Your task to perform on an android device: open app "Microsoft Outlook" Image 0: 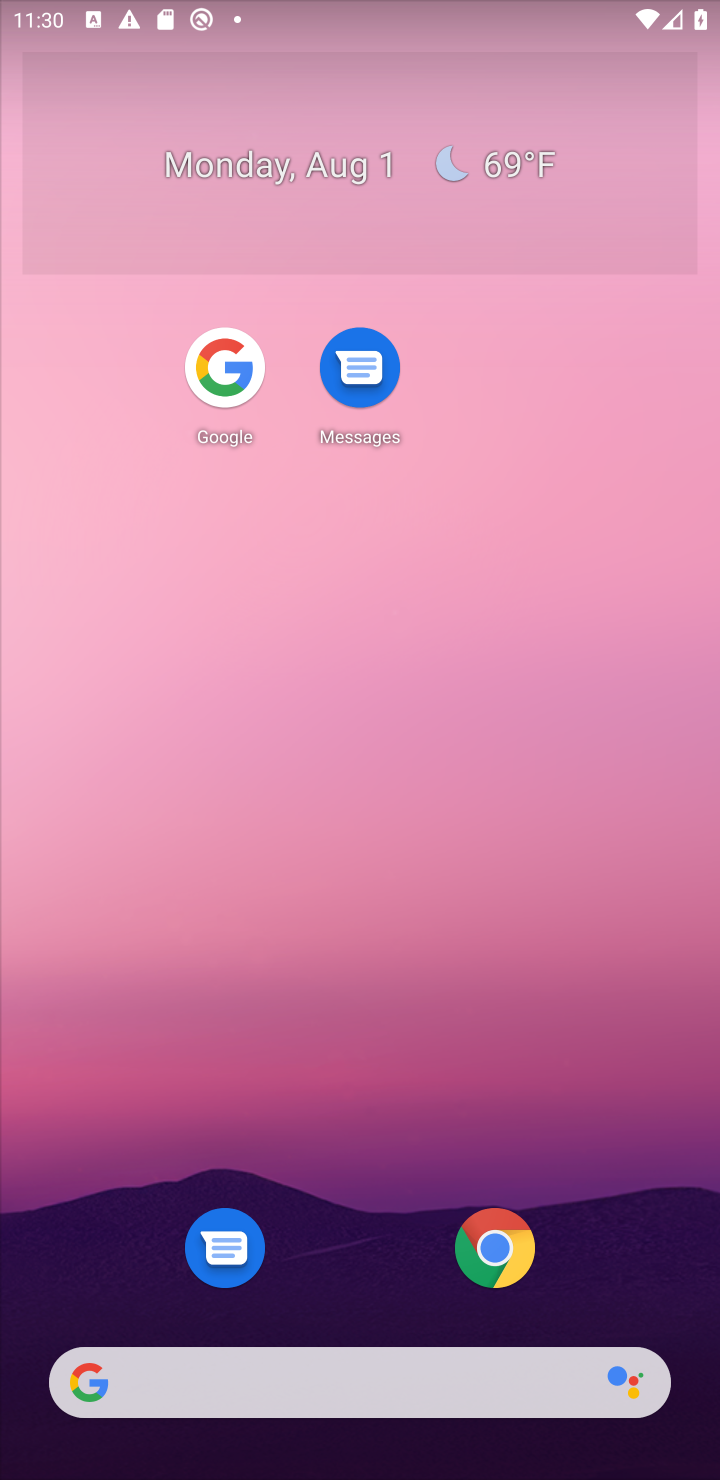
Step 0: drag from (503, 1061) to (555, 30)
Your task to perform on an android device: open app "Microsoft Outlook" Image 1: 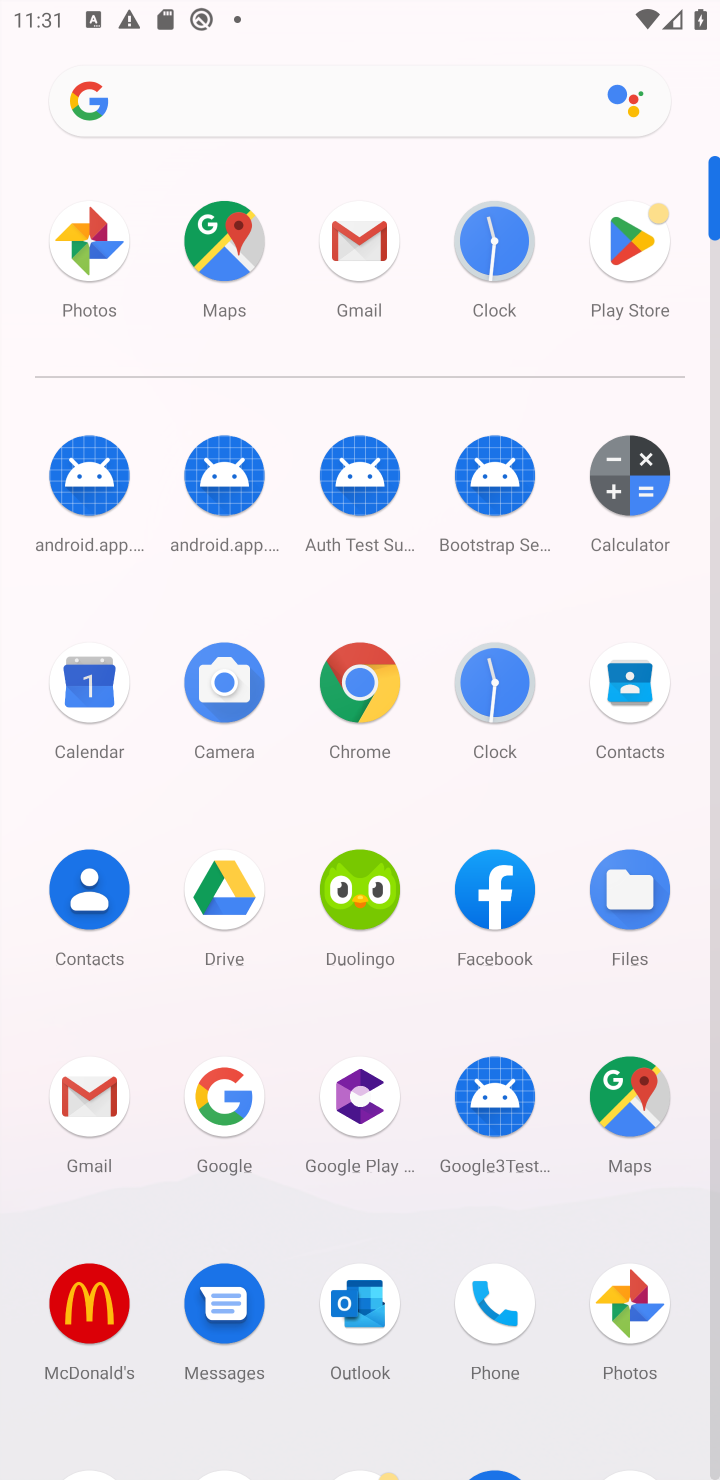
Step 1: drag from (297, 1188) to (324, 346)
Your task to perform on an android device: open app "Microsoft Outlook" Image 2: 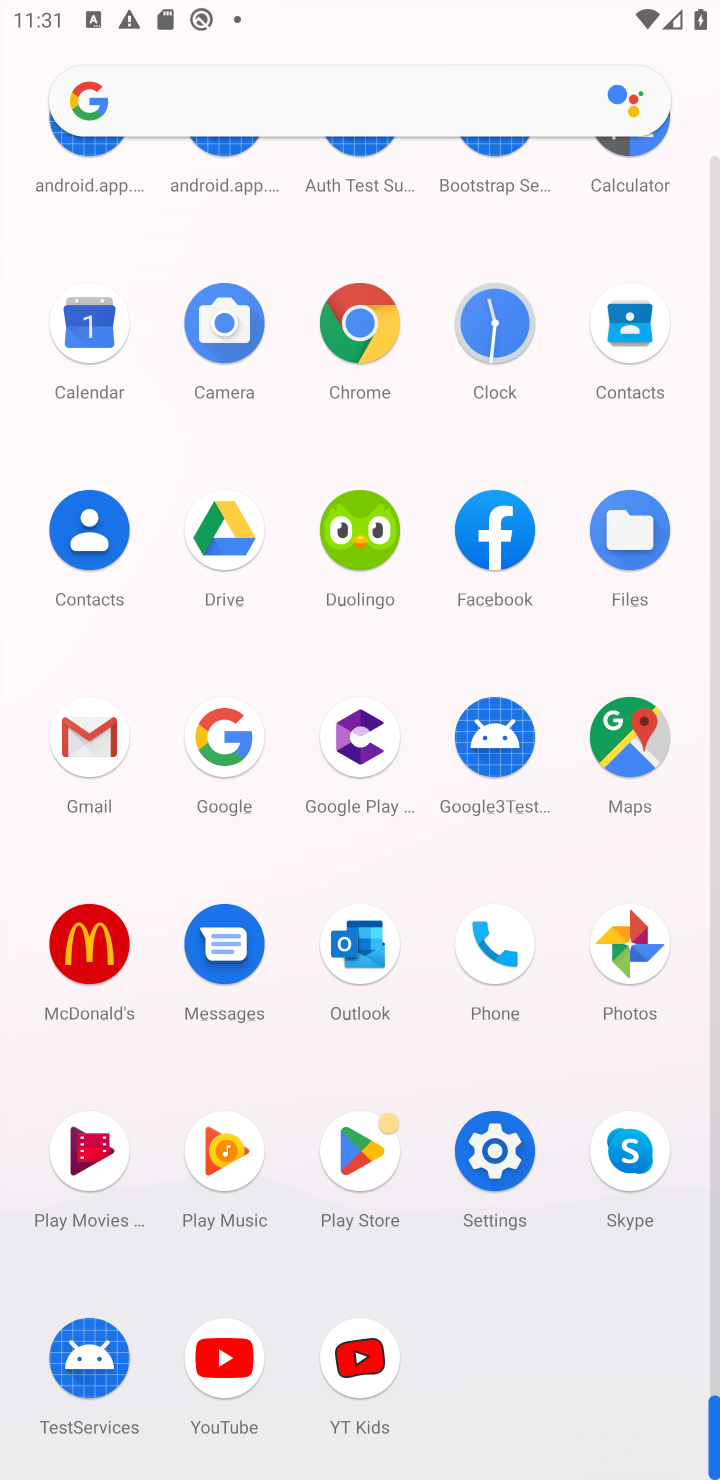
Step 2: click (365, 1153)
Your task to perform on an android device: open app "Microsoft Outlook" Image 3: 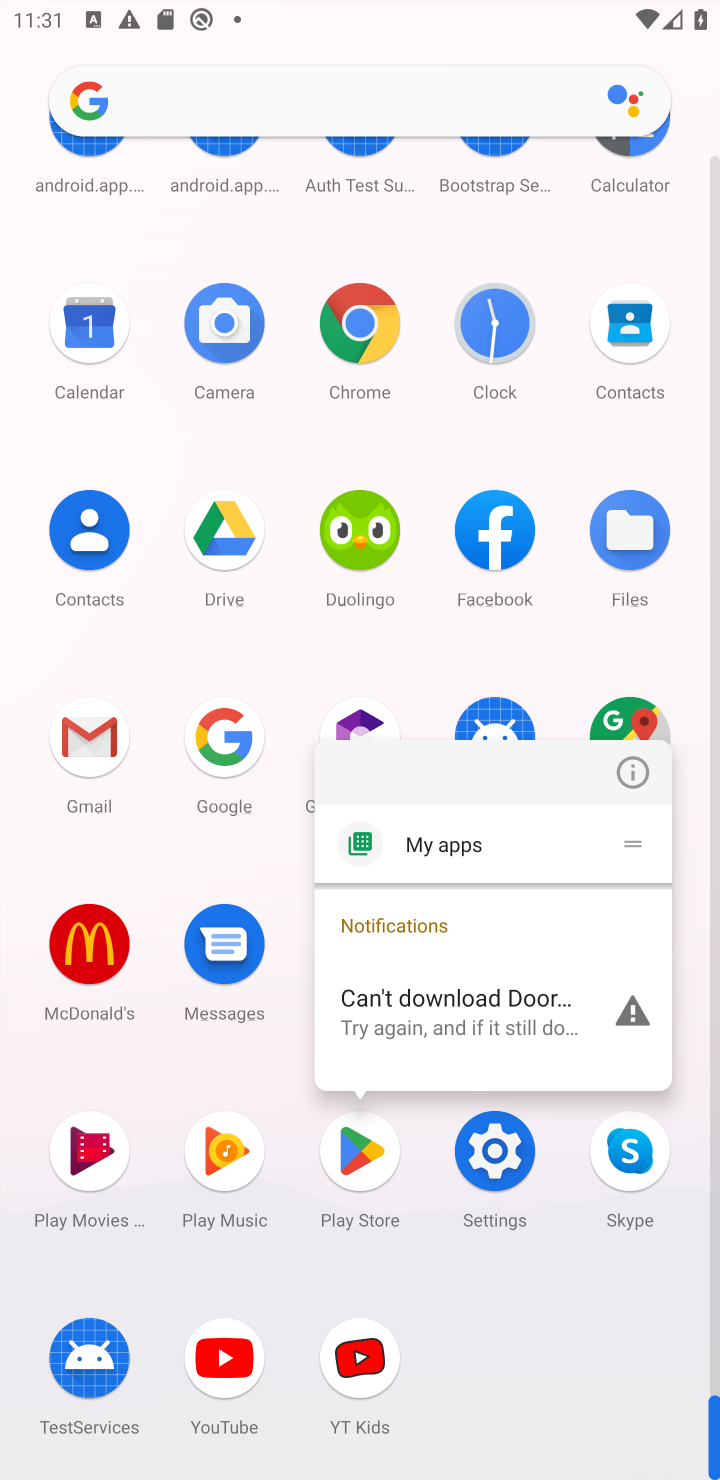
Step 3: click (365, 1152)
Your task to perform on an android device: open app "Microsoft Outlook" Image 4: 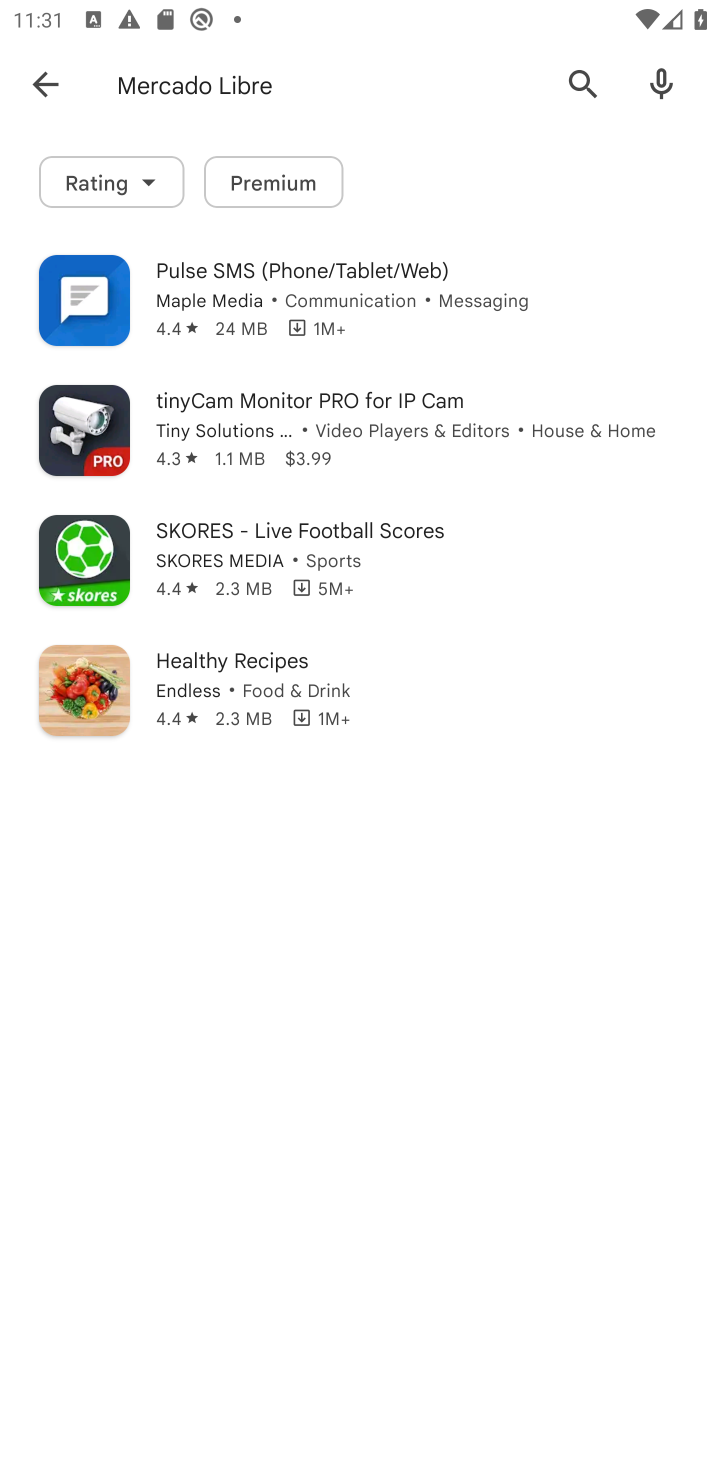
Step 4: click (364, 75)
Your task to perform on an android device: open app "Microsoft Outlook" Image 5: 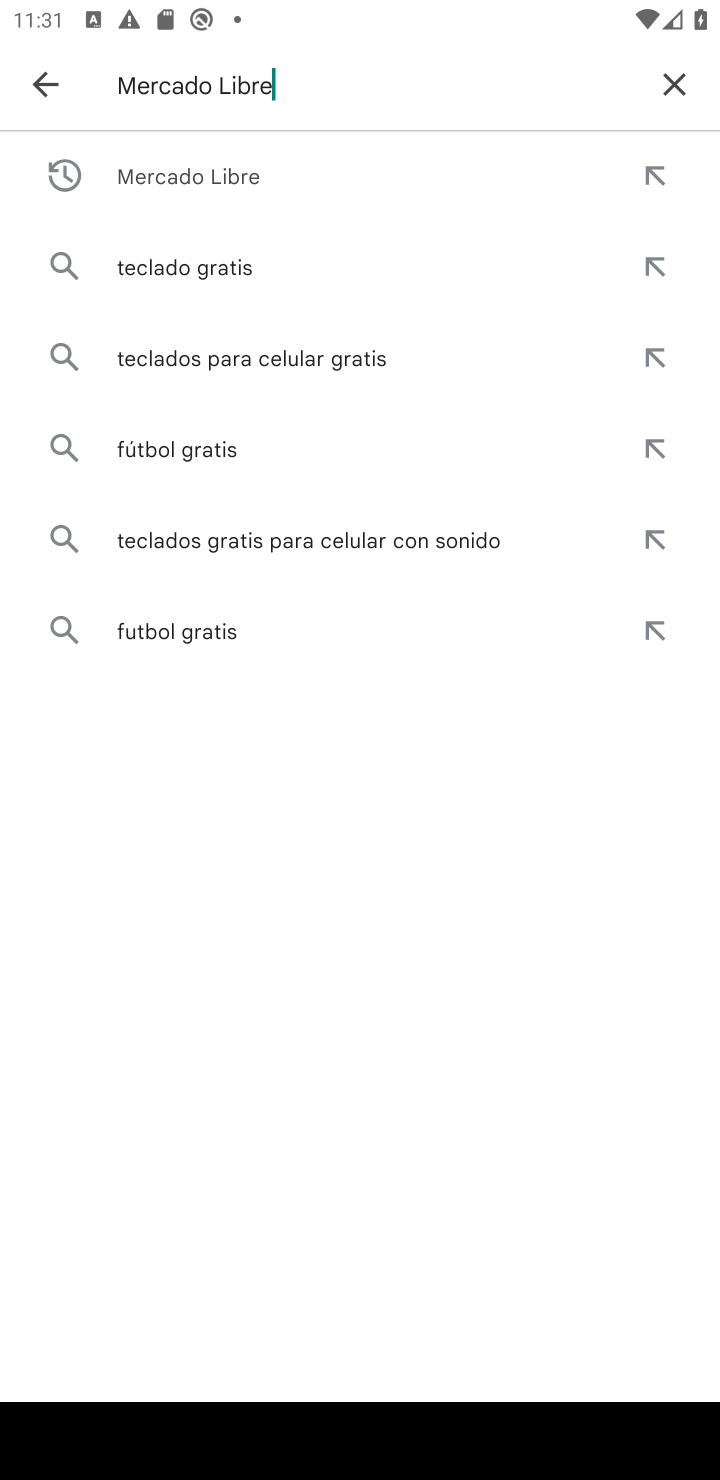
Step 5: click (679, 76)
Your task to perform on an android device: open app "Microsoft Outlook" Image 6: 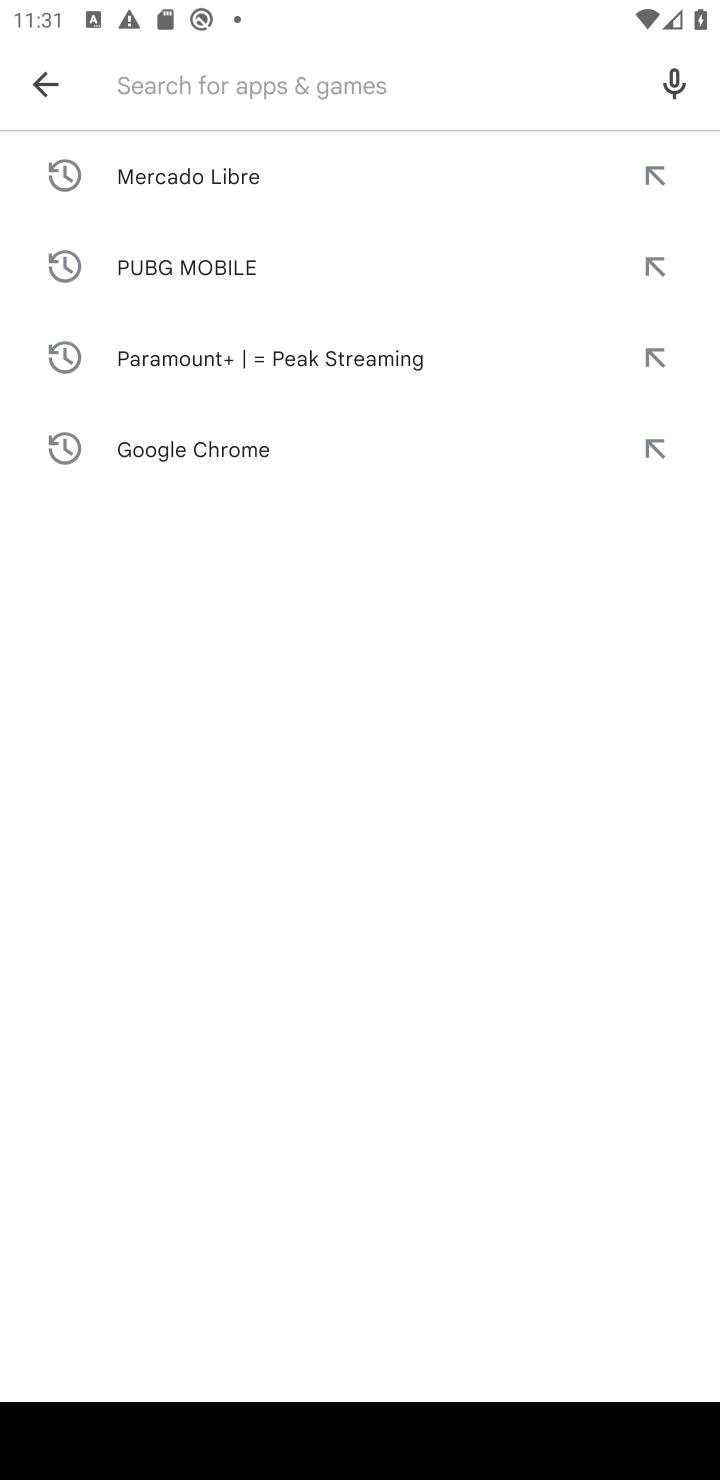
Step 6: type "Microsoft Outlook"
Your task to perform on an android device: open app "Microsoft Outlook" Image 7: 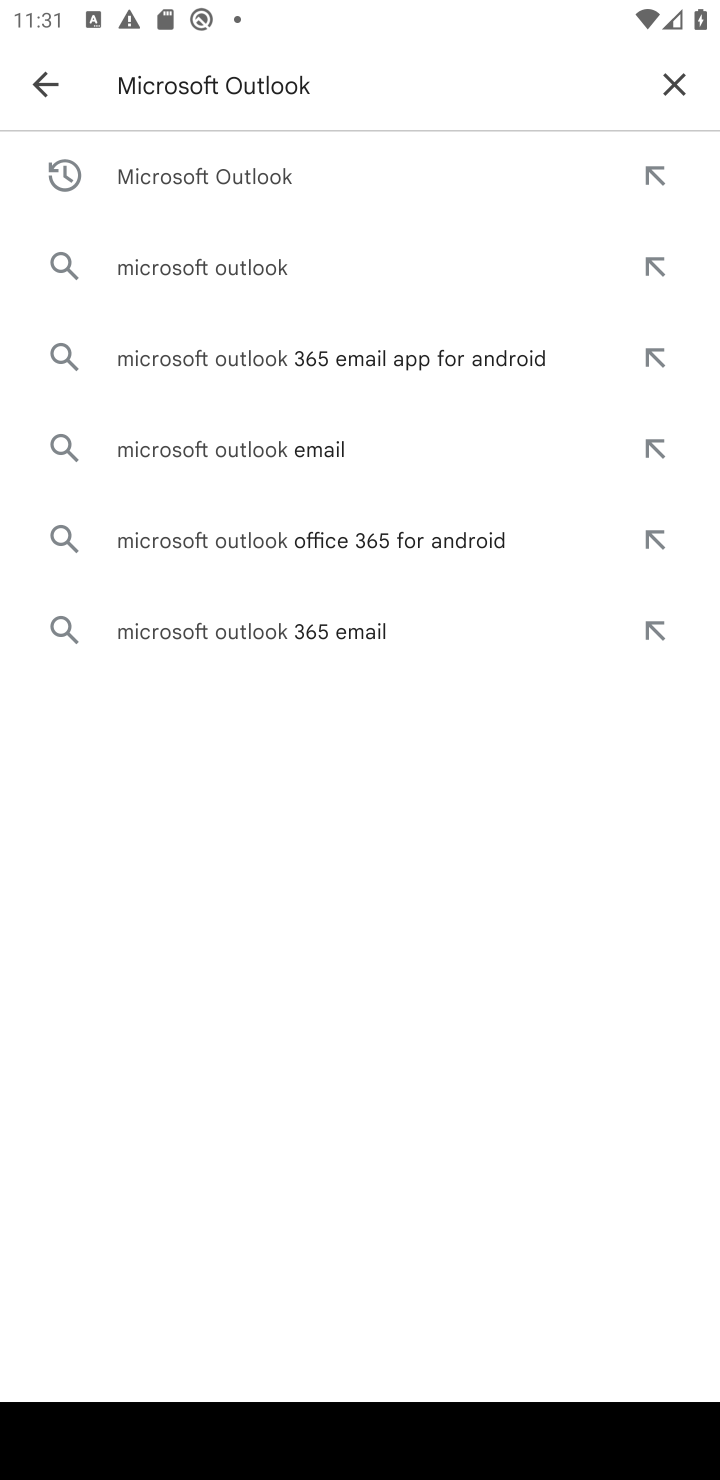
Step 7: press enter
Your task to perform on an android device: open app "Microsoft Outlook" Image 8: 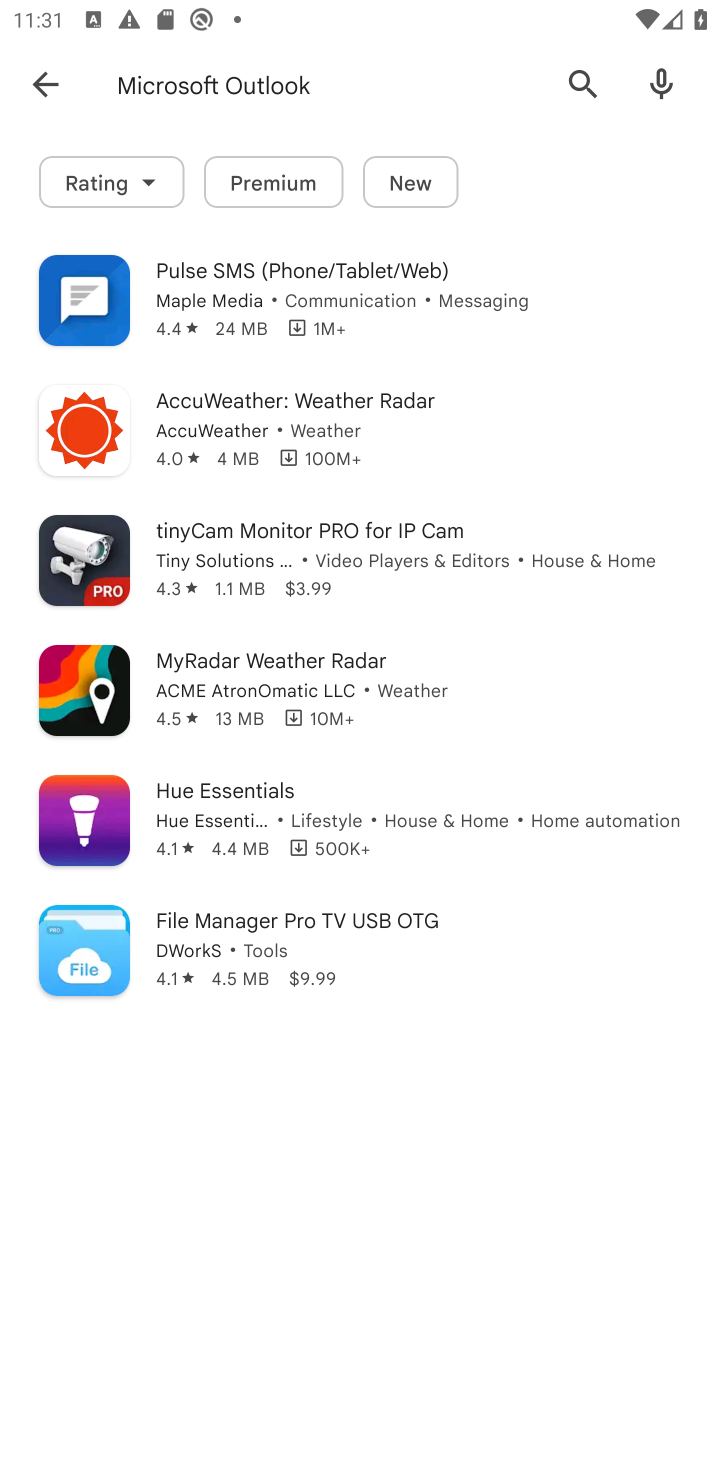
Step 8: task complete